Your task to perform on an android device: Open the web browser Image 0: 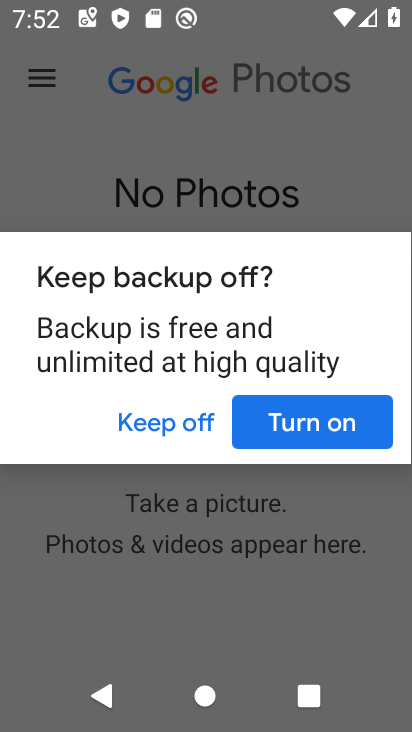
Step 0: press back button
Your task to perform on an android device: Open the web browser Image 1: 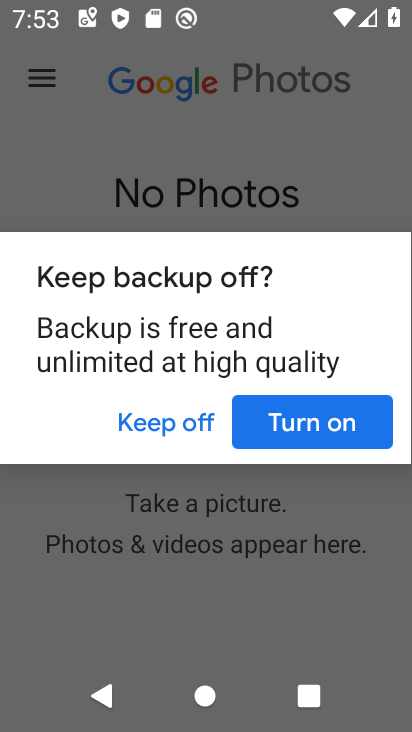
Step 1: press home button
Your task to perform on an android device: Open the web browser Image 2: 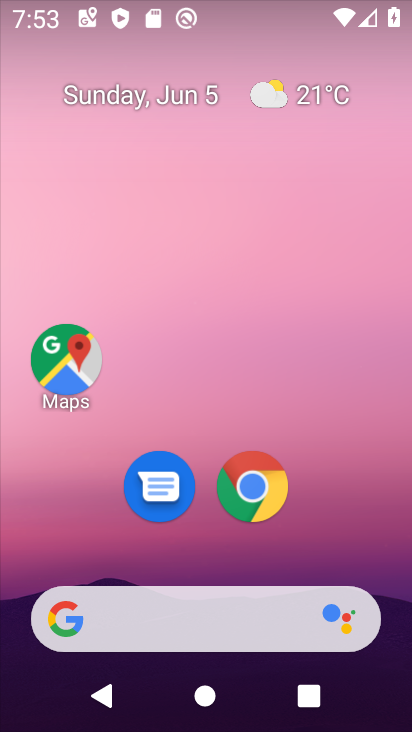
Step 2: click (256, 486)
Your task to perform on an android device: Open the web browser Image 3: 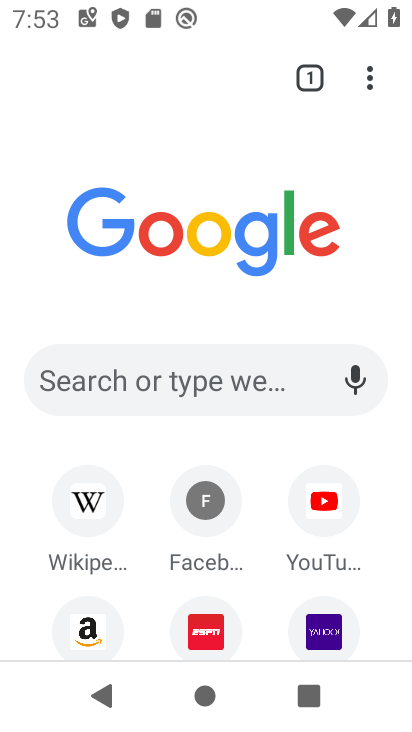
Step 3: task complete